Your task to perform on an android device: clear history in the chrome app Image 0: 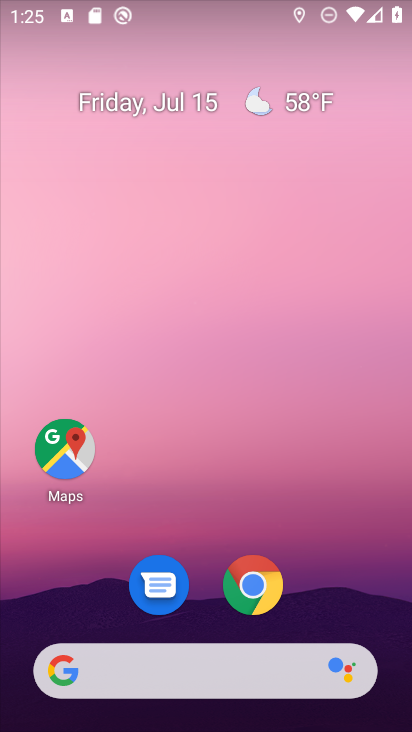
Step 0: click (246, 573)
Your task to perform on an android device: clear history in the chrome app Image 1: 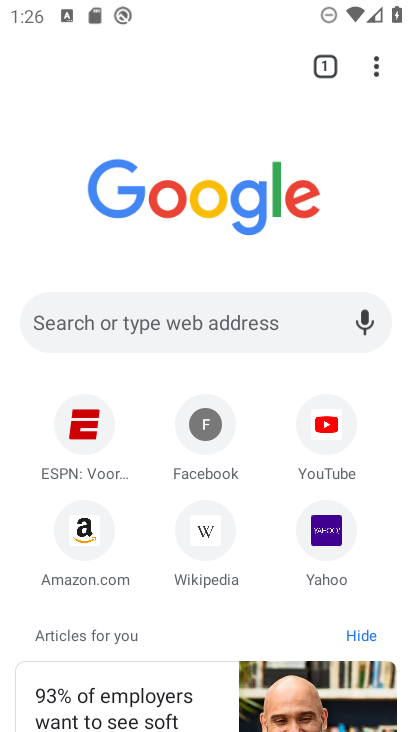
Step 1: click (380, 64)
Your task to perform on an android device: clear history in the chrome app Image 2: 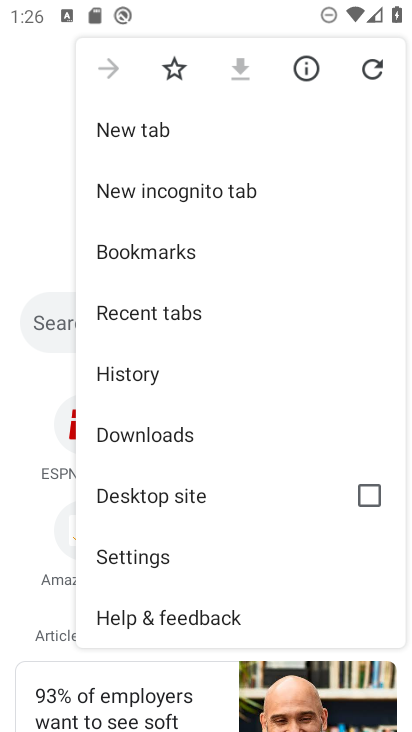
Step 2: click (144, 375)
Your task to perform on an android device: clear history in the chrome app Image 3: 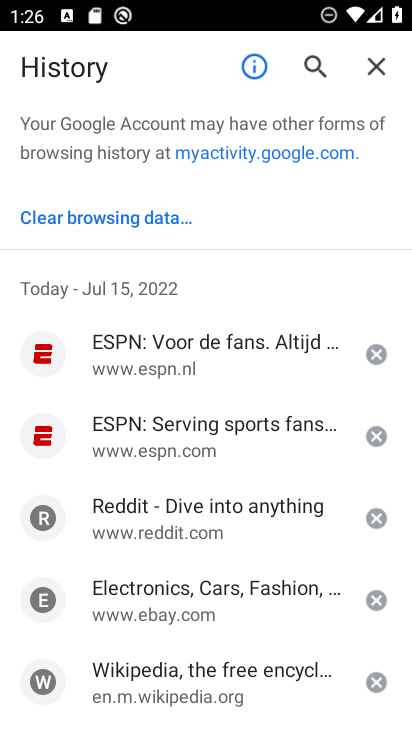
Step 3: click (162, 219)
Your task to perform on an android device: clear history in the chrome app Image 4: 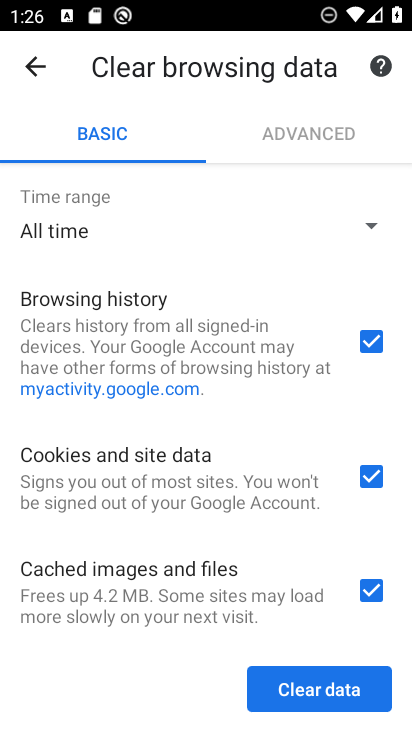
Step 4: click (336, 693)
Your task to perform on an android device: clear history in the chrome app Image 5: 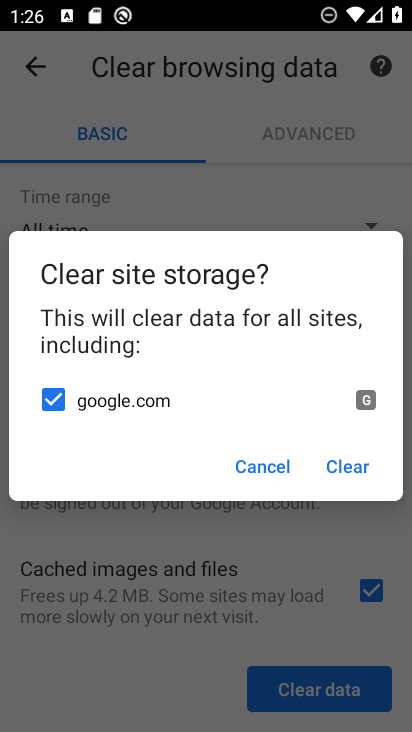
Step 5: click (352, 466)
Your task to perform on an android device: clear history in the chrome app Image 6: 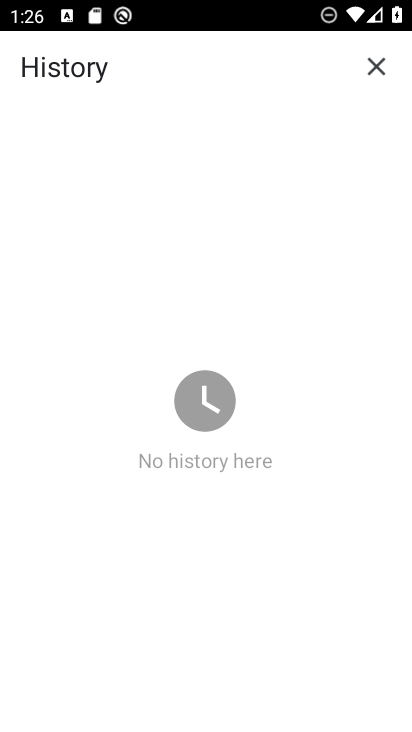
Step 6: task complete